Your task to perform on an android device: check storage Image 0: 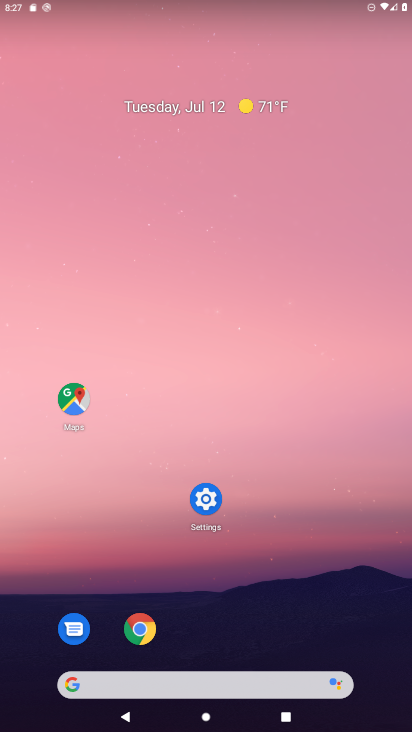
Step 0: click (203, 501)
Your task to perform on an android device: check storage Image 1: 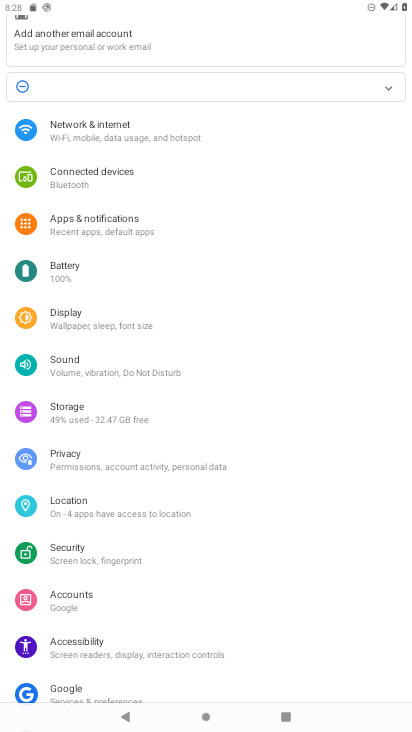
Step 1: click (61, 408)
Your task to perform on an android device: check storage Image 2: 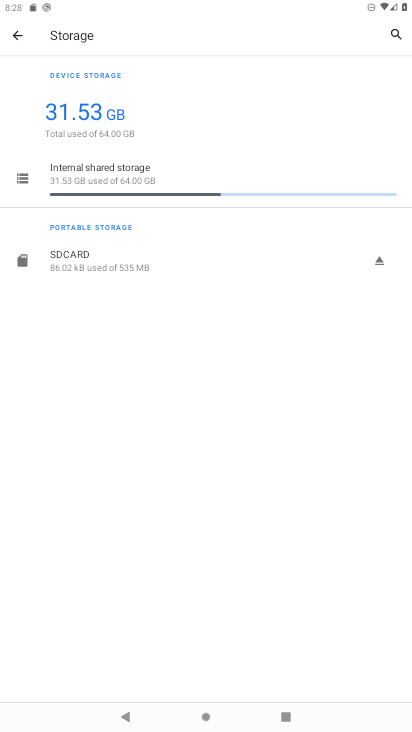
Step 2: task complete